Your task to perform on an android device: Turn off the flashlight Image 0: 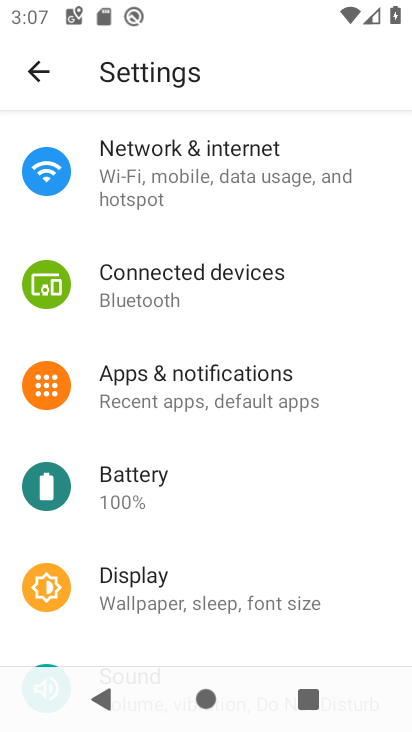
Step 0: task impossible